Your task to perform on an android device: install app "Lyft - Rideshare, Bikes, Scooters & Transit" Image 0: 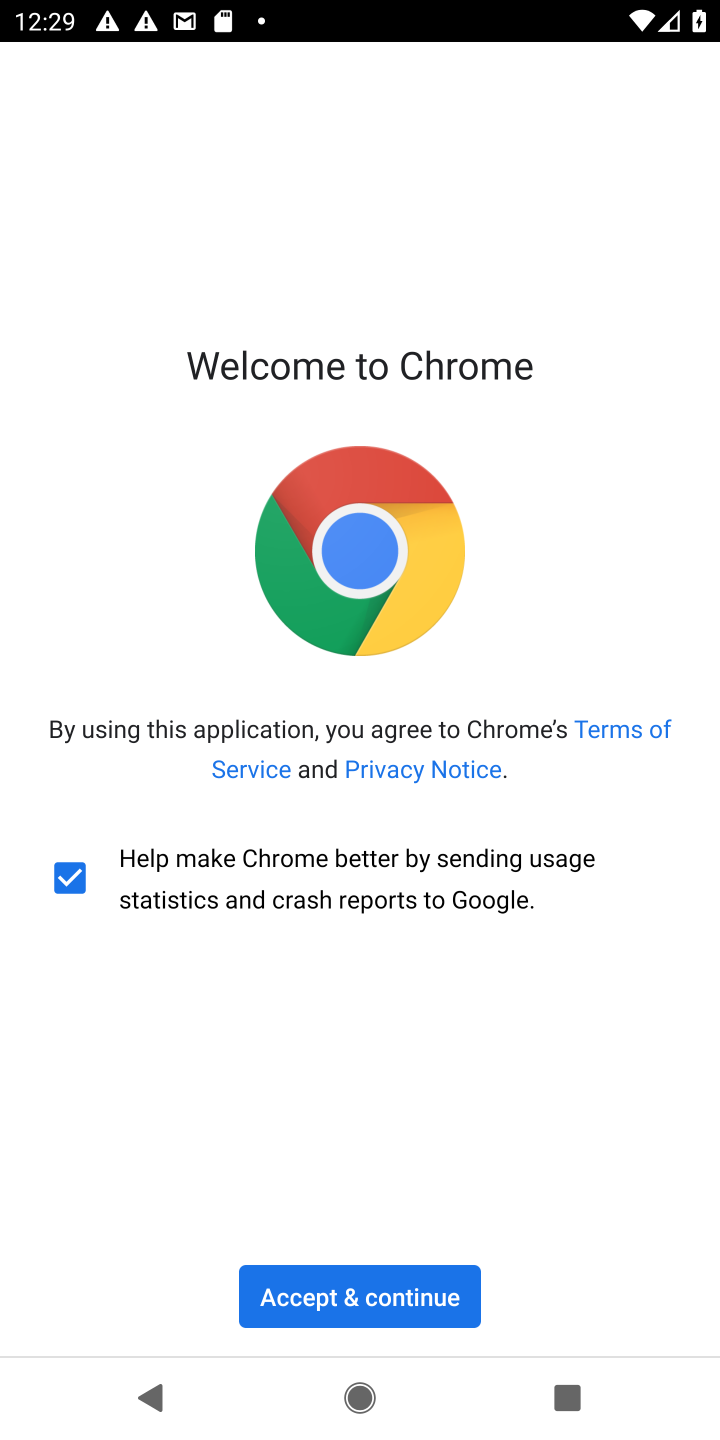
Step 0: press home button
Your task to perform on an android device: install app "Lyft - Rideshare, Bikes, Scooters & Transit" Image 1: 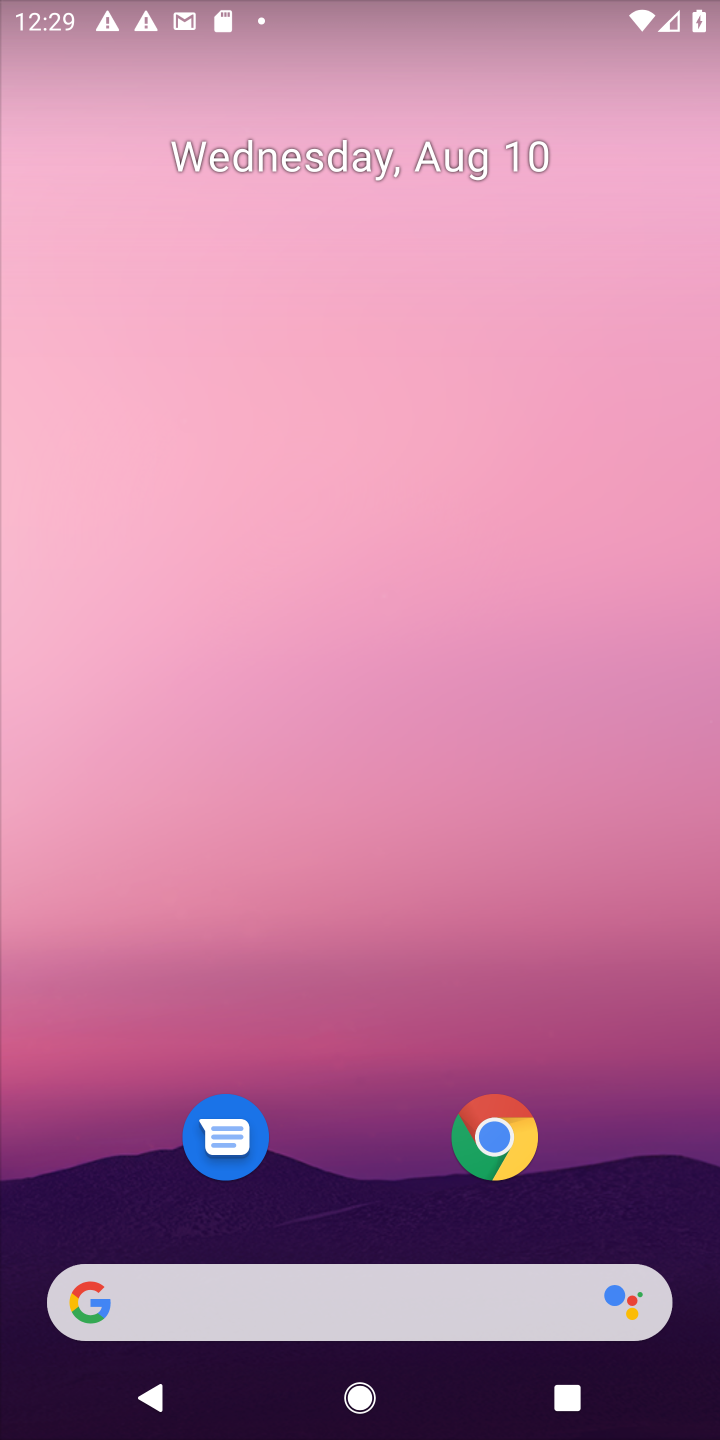
Step 1: drag from (357, 1228) to (492, 365)
Your task to perform on an android device: install app "Lyft - Rideshare, Bikes, Scooters & Transit" Image 2: 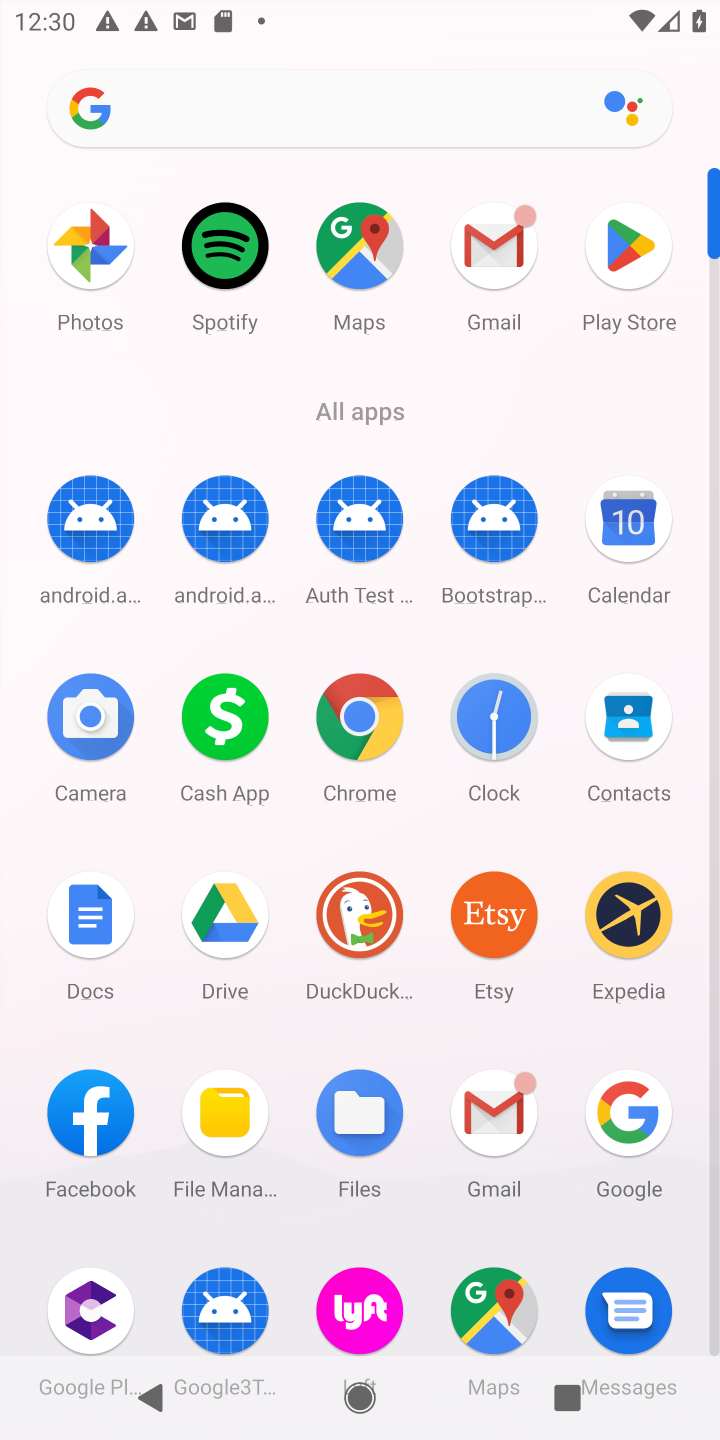
Step 2: click (624, 236)
Your task to perform on an android device: install app "Lyft - Rideshare, Bikes, Scooters & Transit" Image 3: 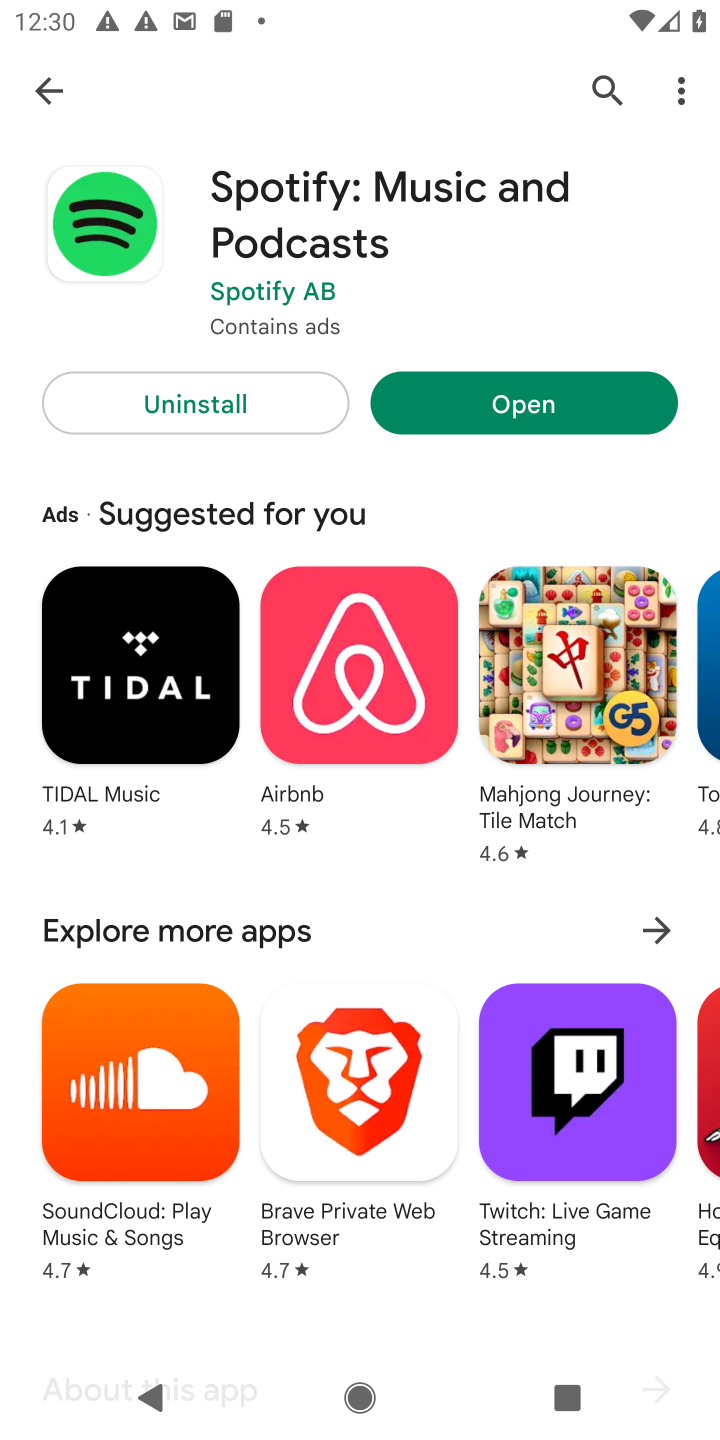
Step 3: click (598, 88)
Your task to perform on an android device: install app "Lyft - Rideshare, Bikes, Scooters & Transit" Image 4: 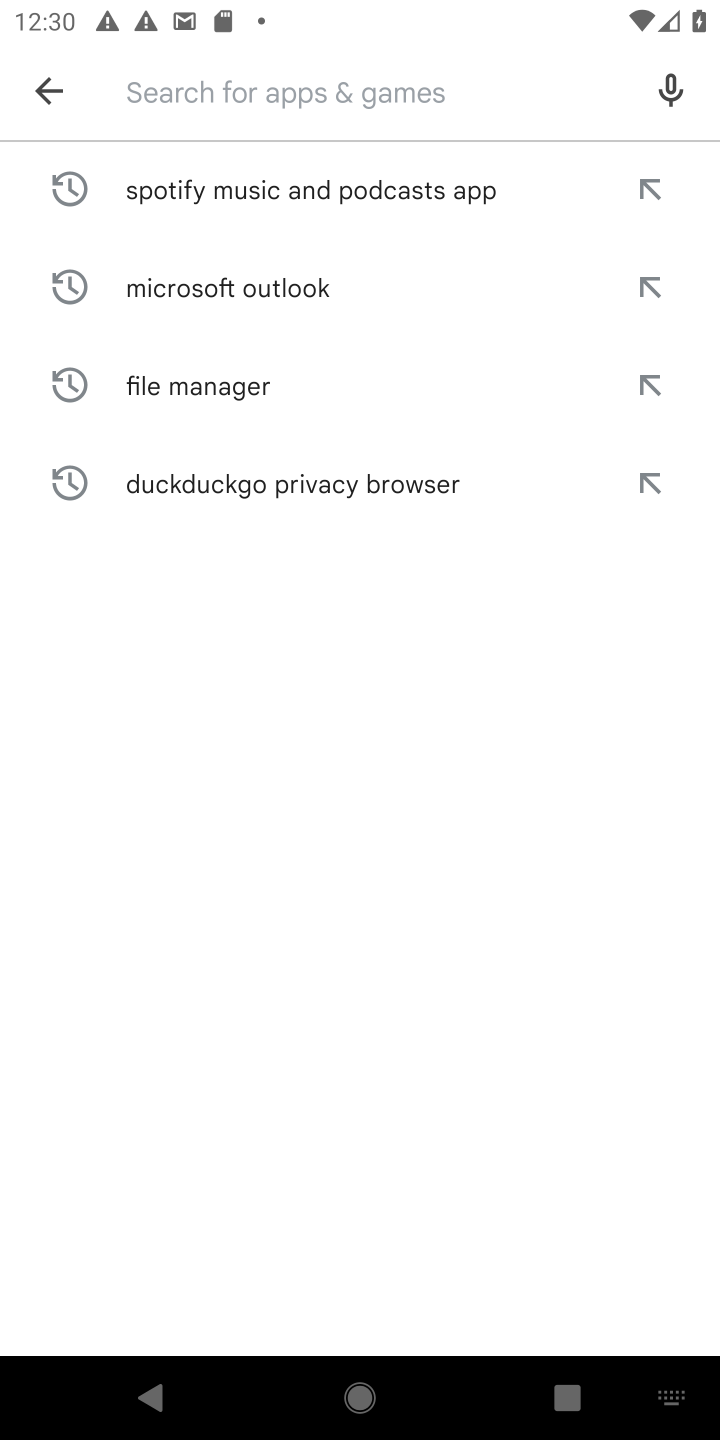
Step 4: type "lyft"
Your task to perform on an android device: install app "Lyft - Rideshare, Bikes, Scooters & Transit" Image 5: 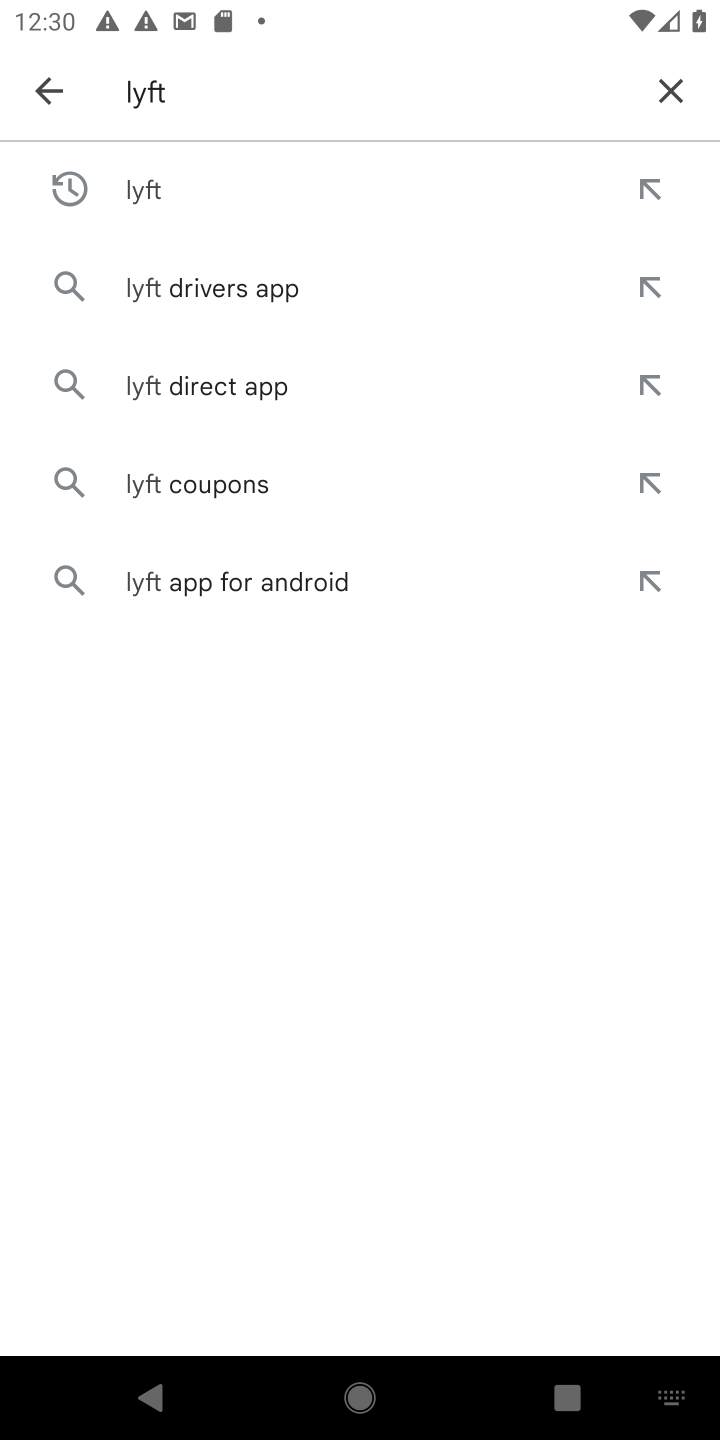
Step 5: click (173, 182)
Your task to perform on an android device: install app "Lyft - Rideshare, Bikes, Scooters & Transit" Image 6: 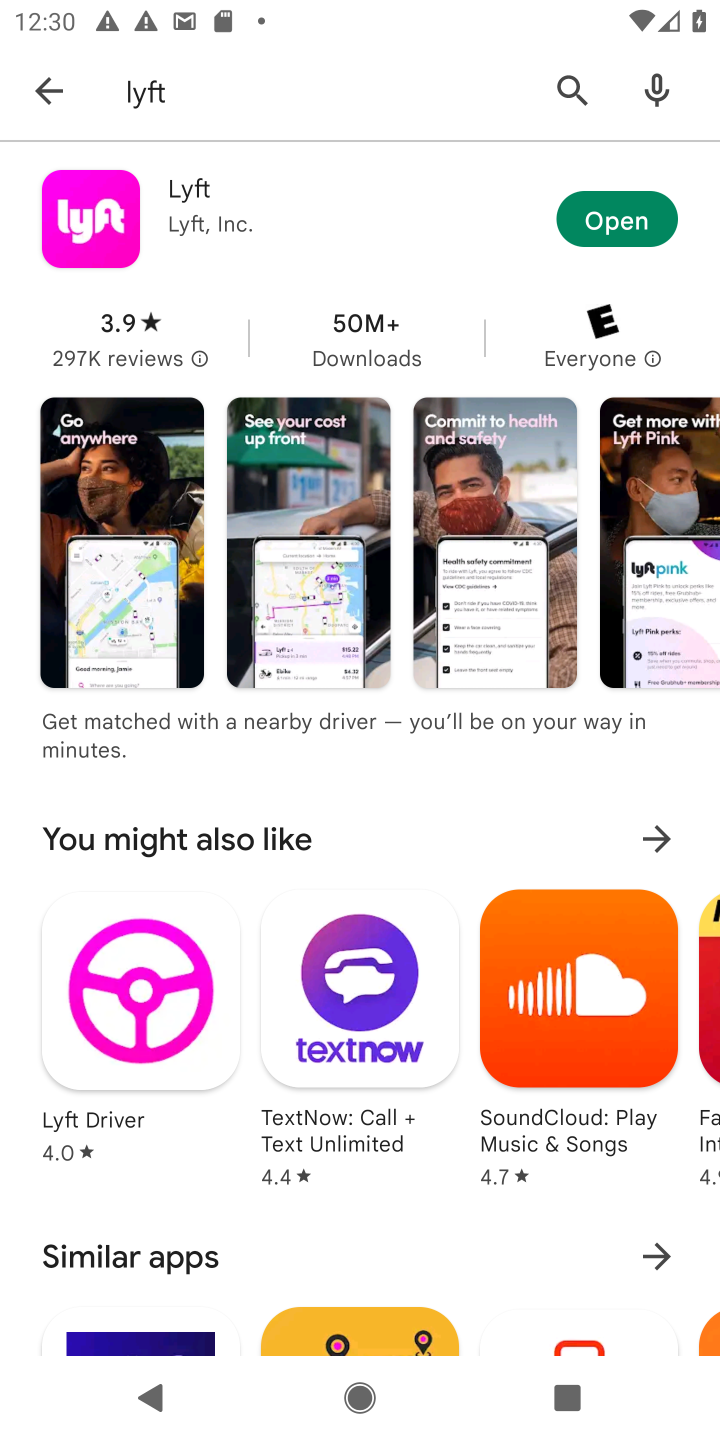
Step 6: click (620, 227)
Your task to perform on an android device: install app "Lyft - Rideshare, Bikes, Scooters & Transit" Image 7: 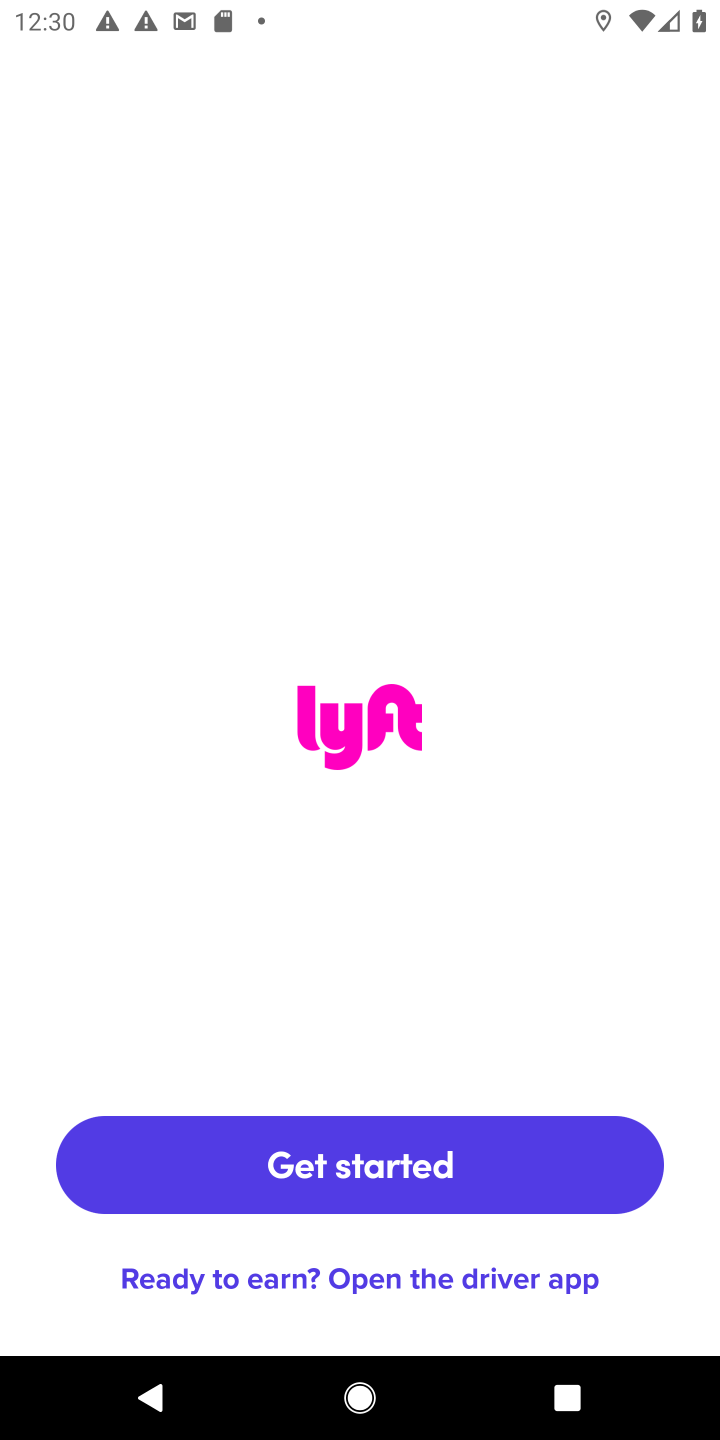
Step 7: task complete